Your task to perform on an android device: turn on airplane mode Image 0: 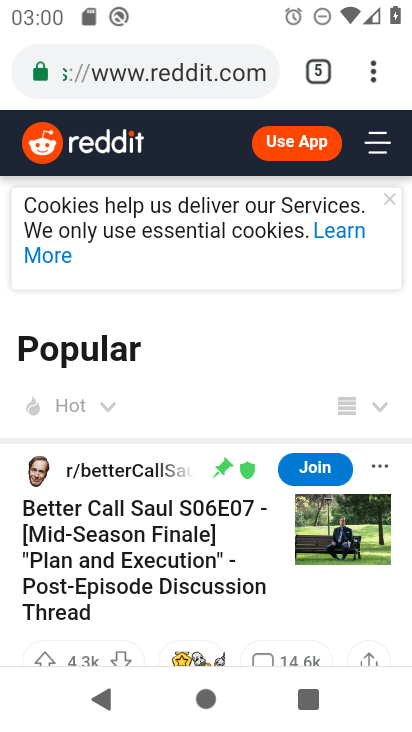
Step 0: press home button
Your task to perform on an android device: turn on airplane mode Image 1: 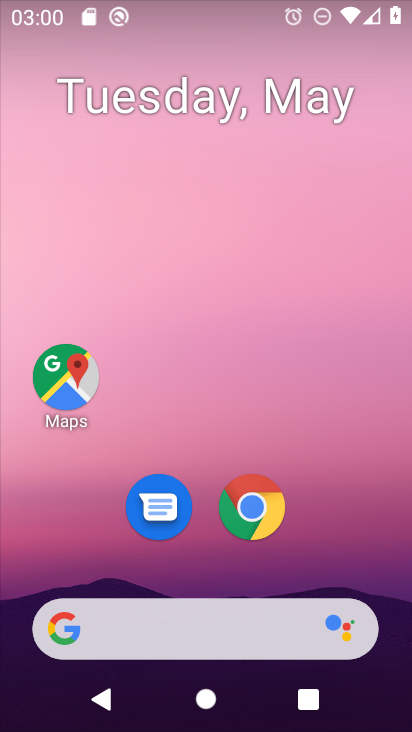
Step 1: drag from (201, 572) to (195, 145)
Your task to perform on an android device: turn on airplane mode Image 2: 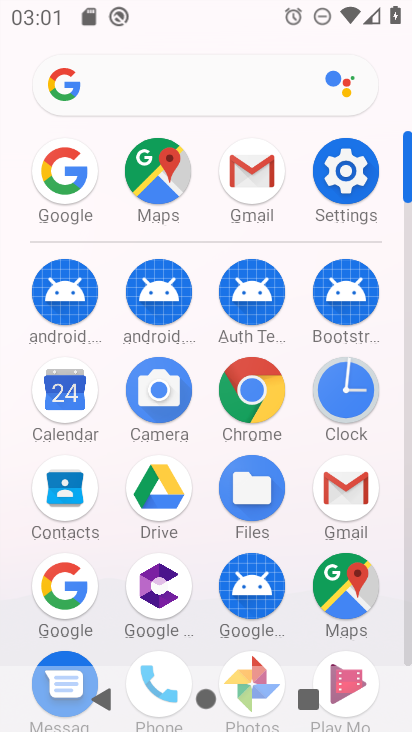
Step 2: click (327, 195)
Your task to perform on an android device: turn on airplane mode Image 3: 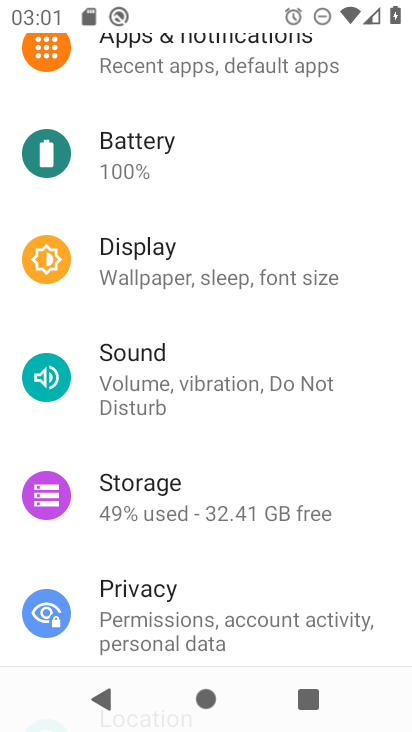
Step 3: drag from (292, 188) to (288, 603)
Your task to perform on an android device: turn on airplane mode Image 4: 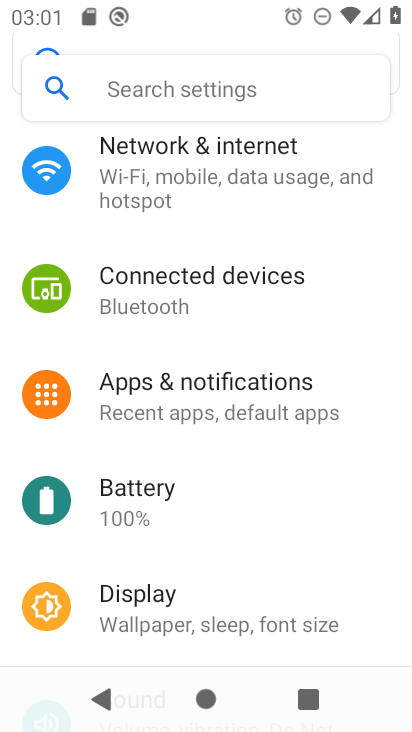
Step 4: drag from (249, 180) to (247, 511)
Your task to perform on an android device: turn on airplane mode Image 5: 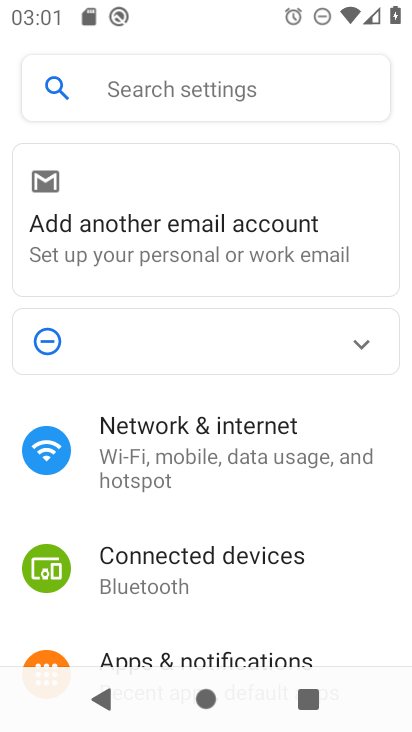
Step 5: click (223, 459)
Your task to perform on an android device: turn on airplane mode Image 6: 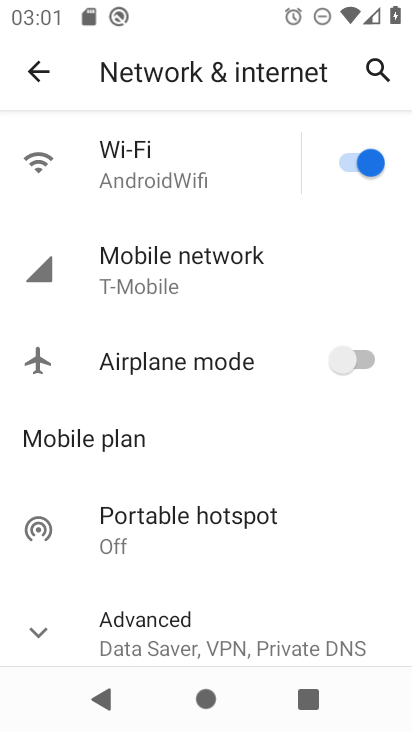
Step 6: click (364, 362)
Your task to perform on an android device: turn on airplane mode Image 7: 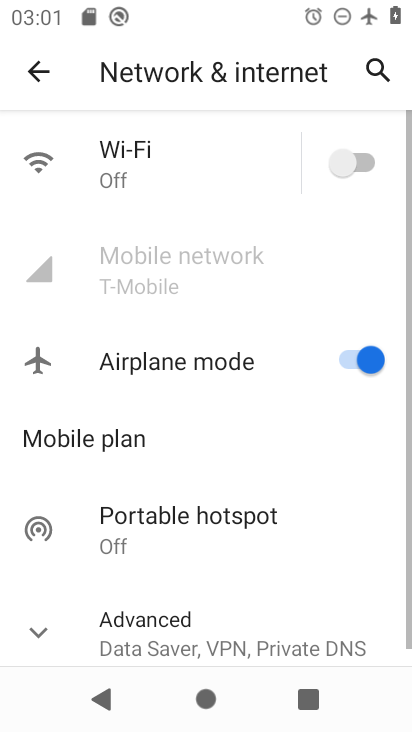
Step 7: task complete